Your task to perform on an android device: turn notification dots off Image 0: 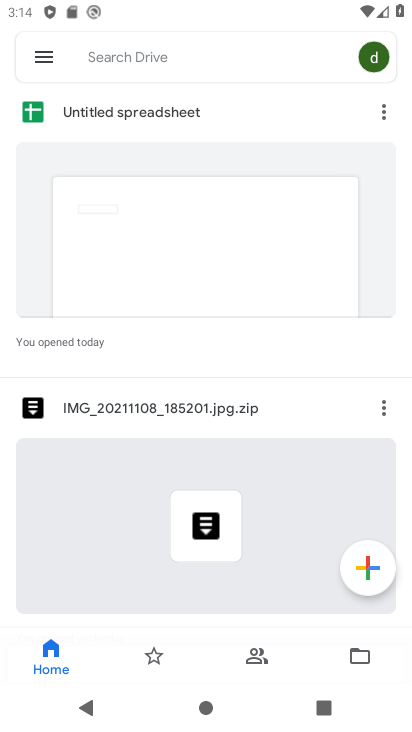
Step 0: press home button
Your task to perform on an android device: turn notification dots off Image 1: 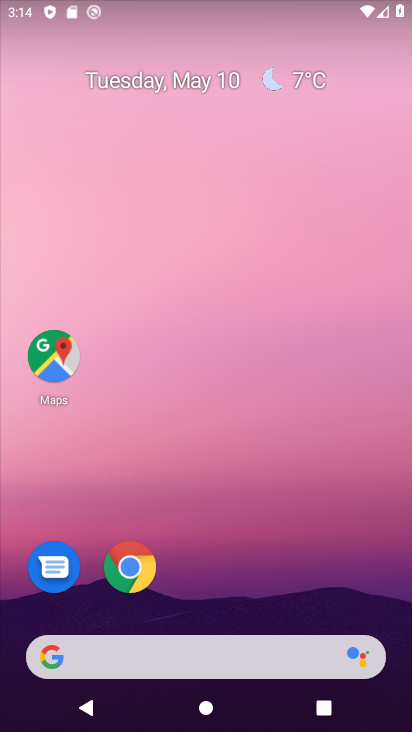
Step 1: drag from (279, 509) to (242, 34)
Your task to perform on an android device: turn notification dots off Image 2: 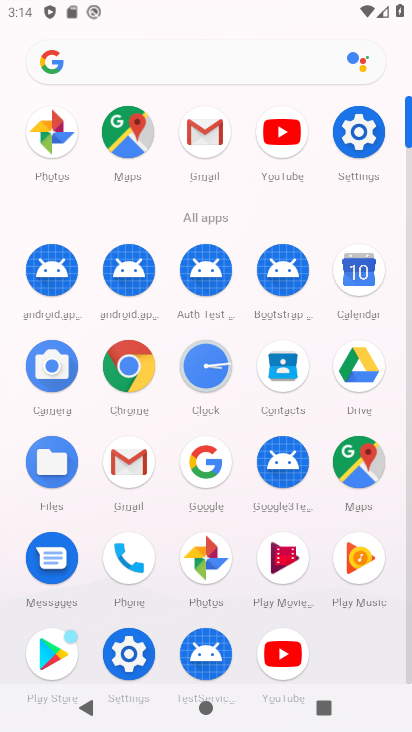
Step 2: click (358, 133)
Your task to perform on an android device: turn notification dots off Image 3: 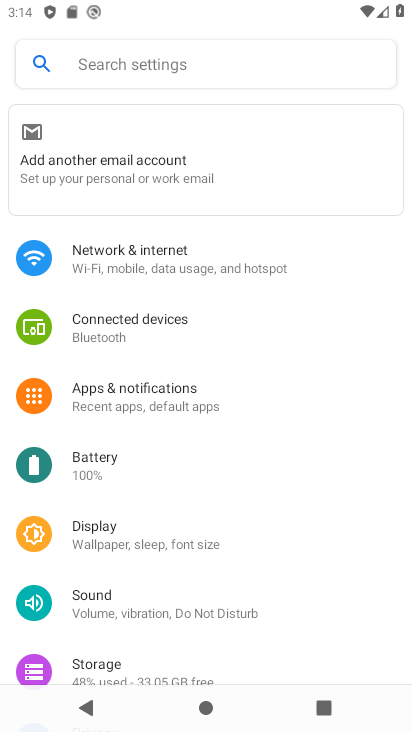
Step 3: drag from (148, 514) to (161, 324)
Your task to perform on an android device: turn notification dots off Image 4: 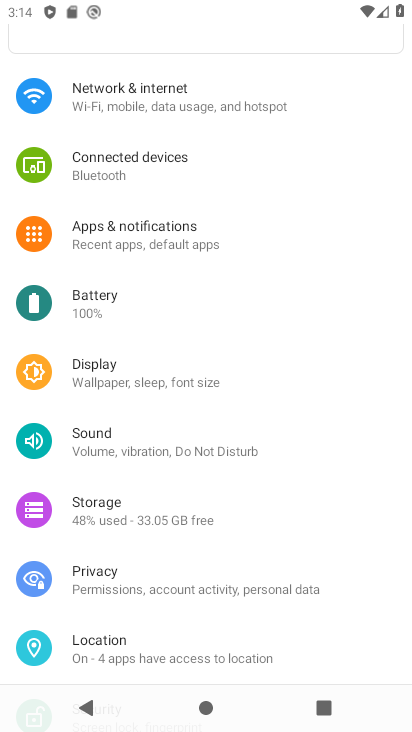
Step 4: click (119, 242)
Your task to perform on an android device: turn notification dots off Image 5: 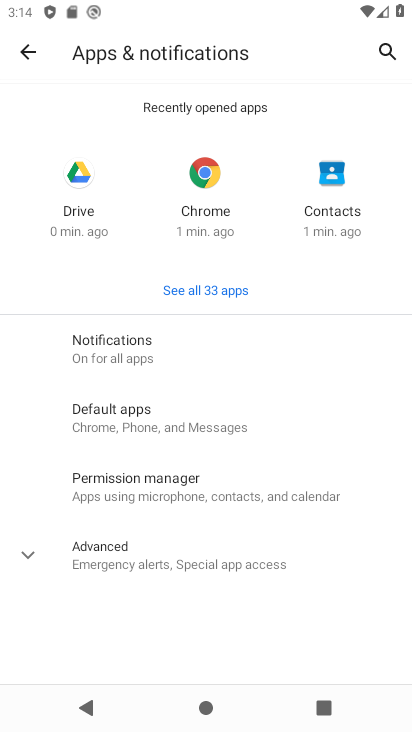
Step 5: click (124, 343)
Your task to perform on an android device: turn notification dots off Image 6: 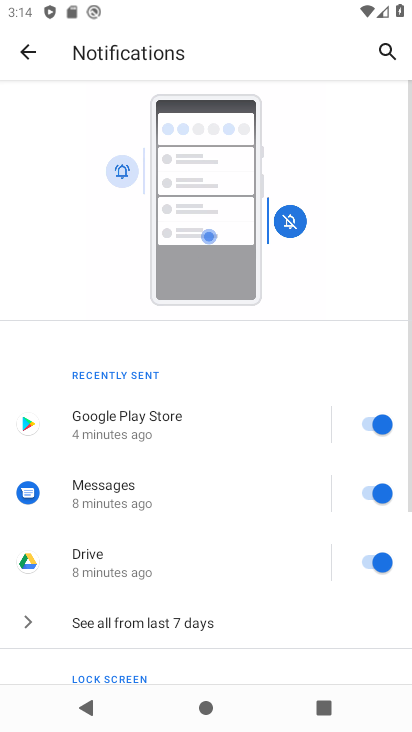
Step 6: drag from (167, 598) to (228, 406)
Your task to perform on an android device: turn notification dots off Image 7: 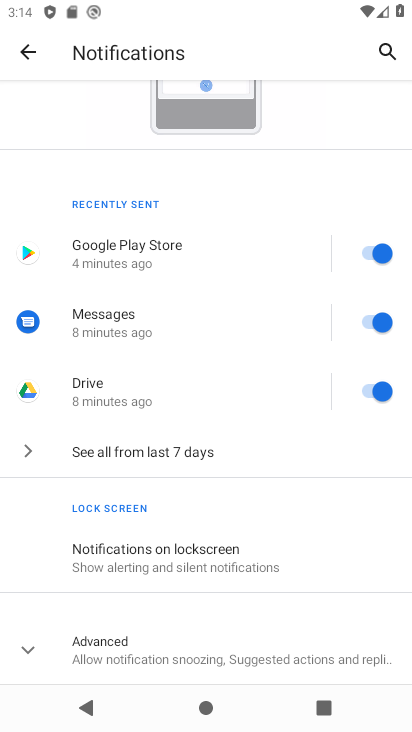
Step 7: drag from (148, 596) to (222, 408)
Your task to perform on an android device: turn notification dots off Image 8: 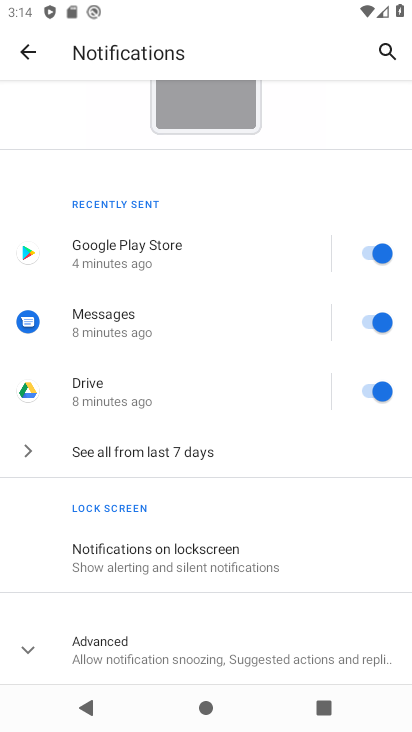
Step 8: click (121, 655)
Your task to perform on an android device: turn notification dots off Image 9: 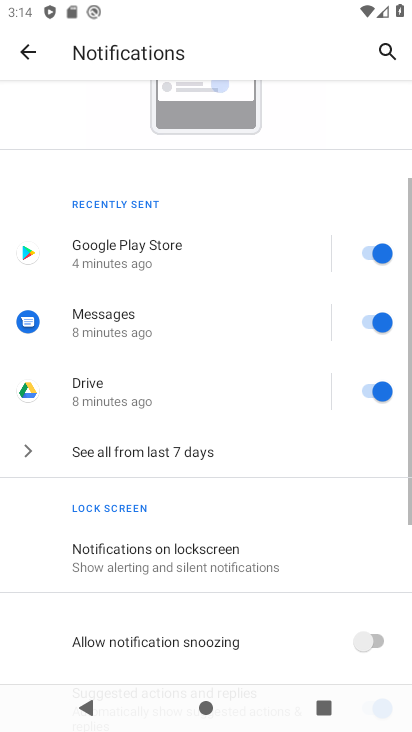
Step 9: drag from (165, 614) to (232, 412)
Your task to perform on an android device: turn notification dots off Image 10: 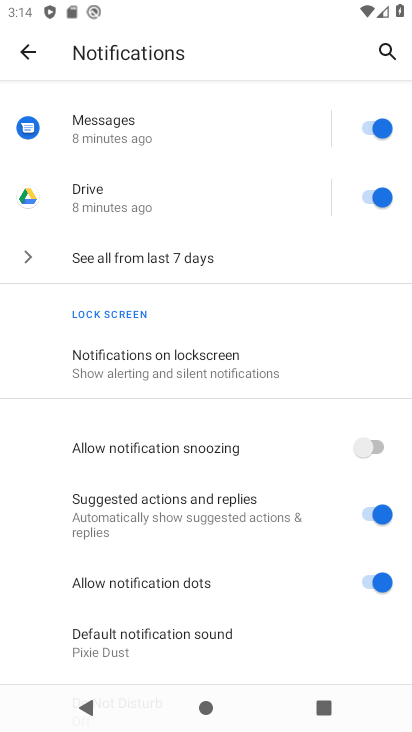
Step 10: drag from (182, 543) to (243, 429)
Your task to perform on an android device: turn notification dots off Image 11: 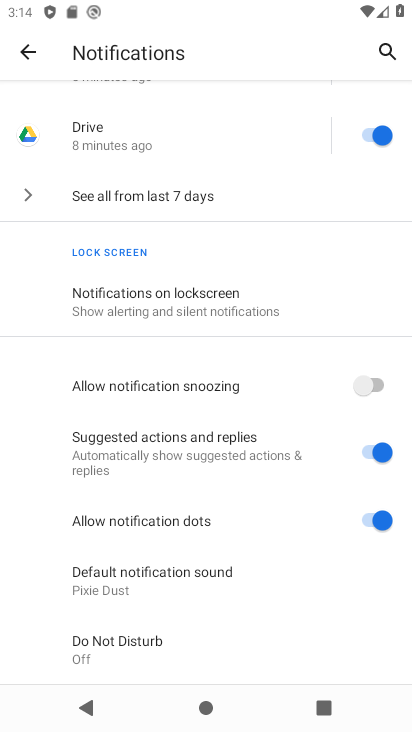
Step 11: click (374, 511)
Your task to perform on an android device: turn notification dots off Image 12: 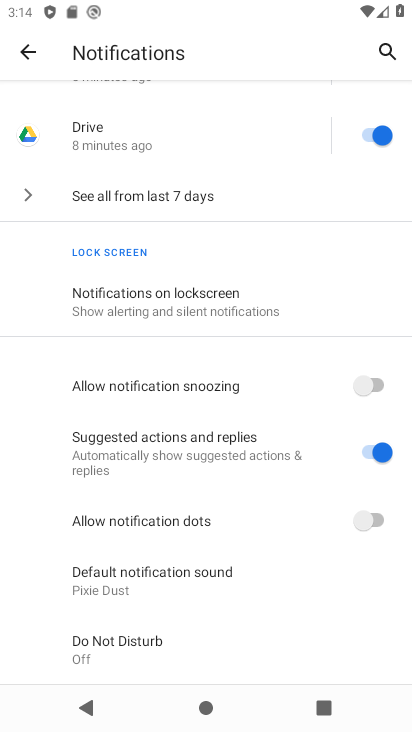
Step 12: task complete